Your task to perform on an android device: Go to Maps Image 0: 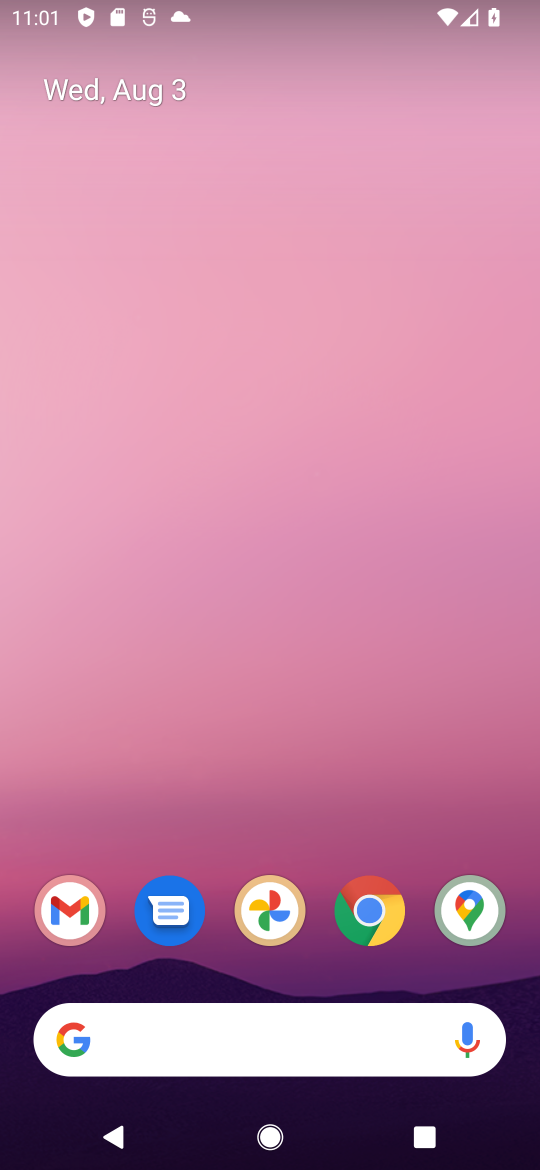
Step 0: press home button
Your task to perform on an android device: Go to Maps Image 1: 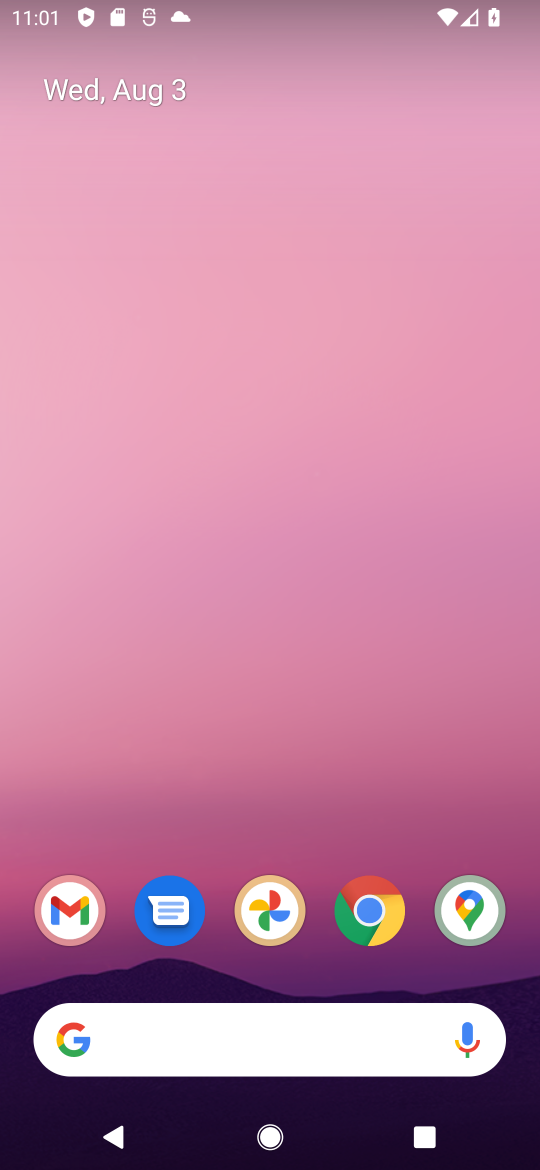
Step 1: click (476, 888)
Your task to perform on an android device: Go to Maps Image 2: 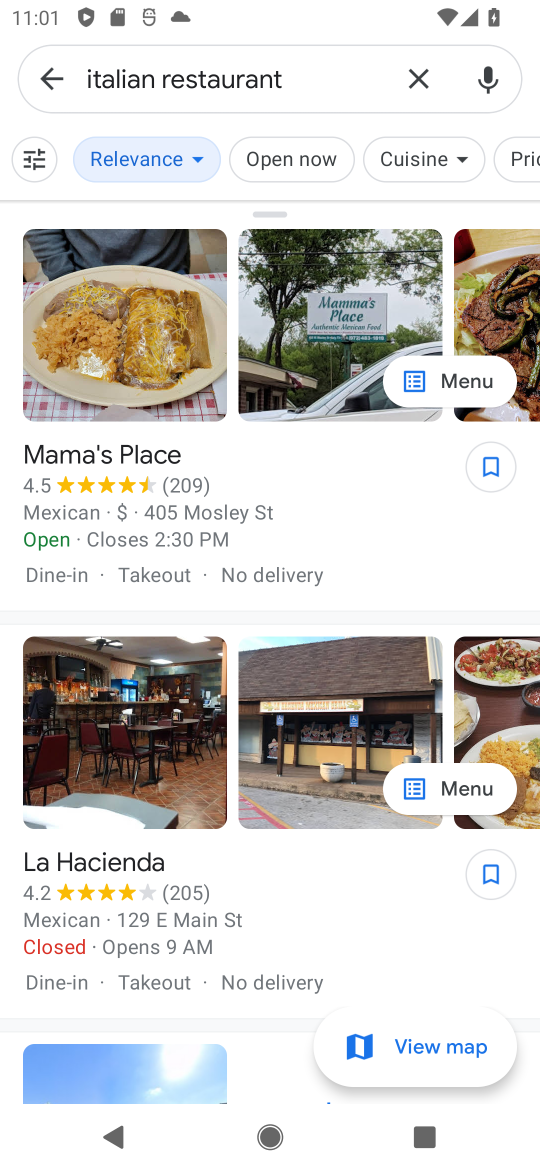
Step 2: click (43, 87)
Your task to perform on an android device: Go to Maps Image 3: 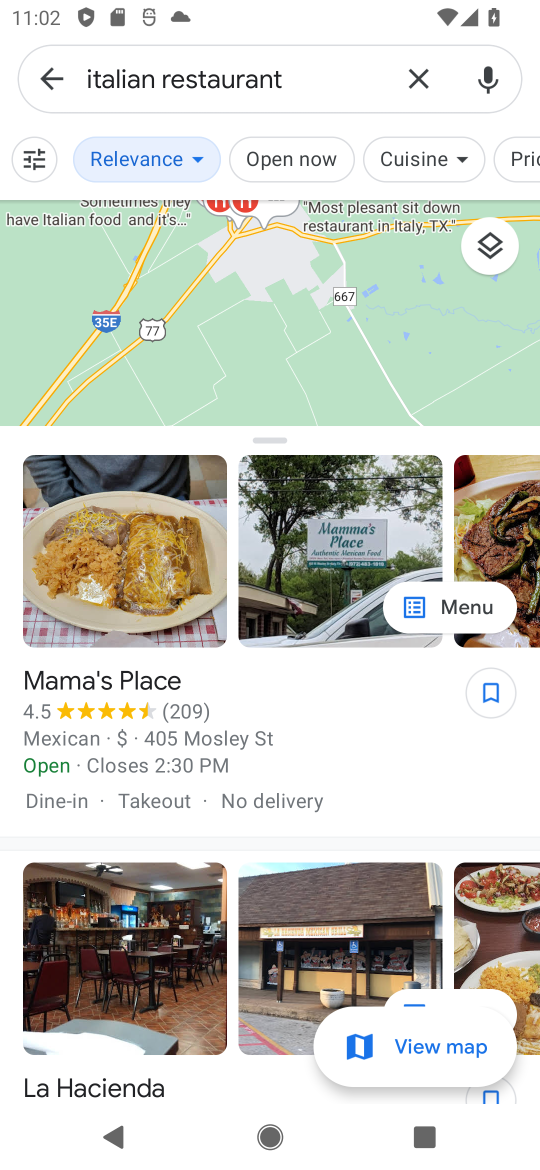
Step 3: click (67, 81)
Your task to perform on an android device: Go to Maps Image 4: 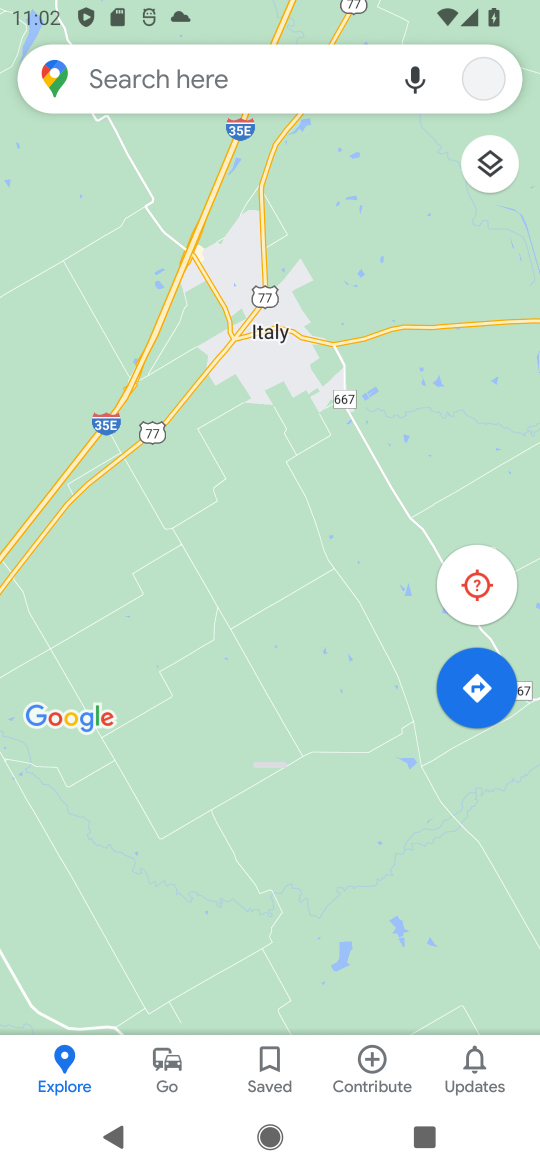
Step 4: task complete